Your task to perform on an android device: turn off sleep mode Image 0: 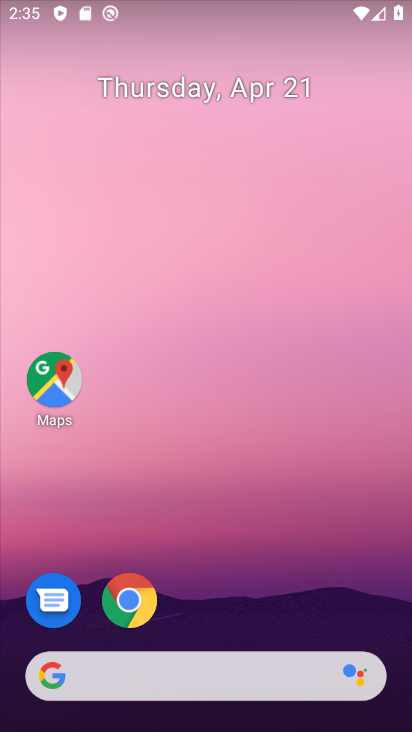
Step 0: drag from (238, 329) to (308, 228)
Your task to perform on an android device: turn off sleep mode Image 1: 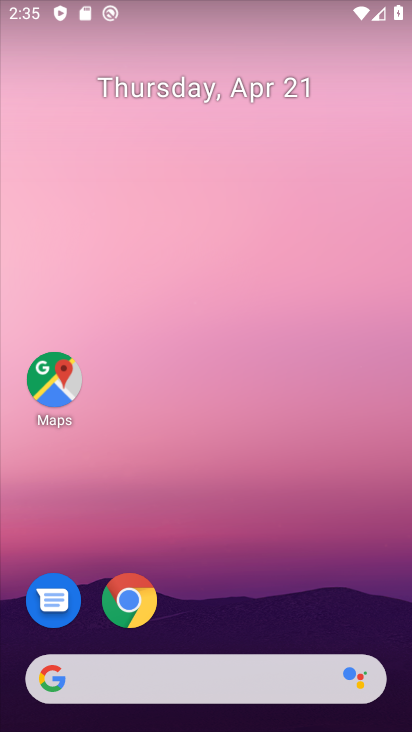
Step 1: drag from (143, 423) to (284, 245)
Your task to perform on an android device: turn off sleep mode Image 2: 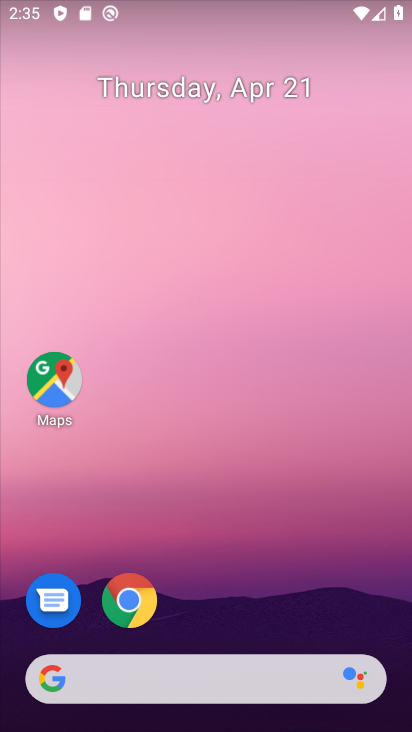
Step 2: drag from (24, 573) to (250, 262)
Your task to perform on an android device: turn off sleep mode Image 3: 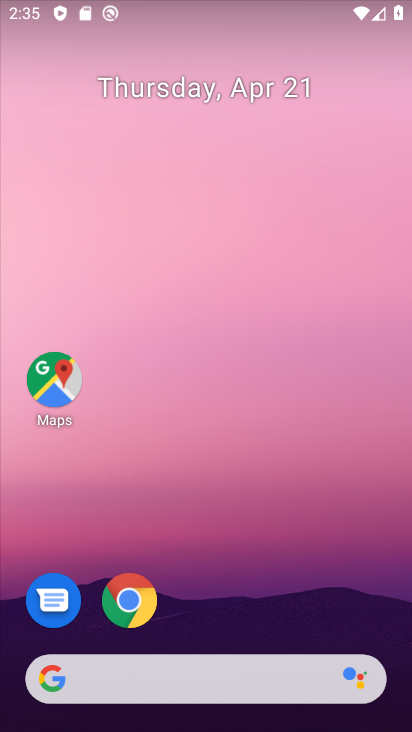
Step 3: drag from (96, 481) to (203, 280)
Your task to perform on an android device: turn off sleep mode Image 4: 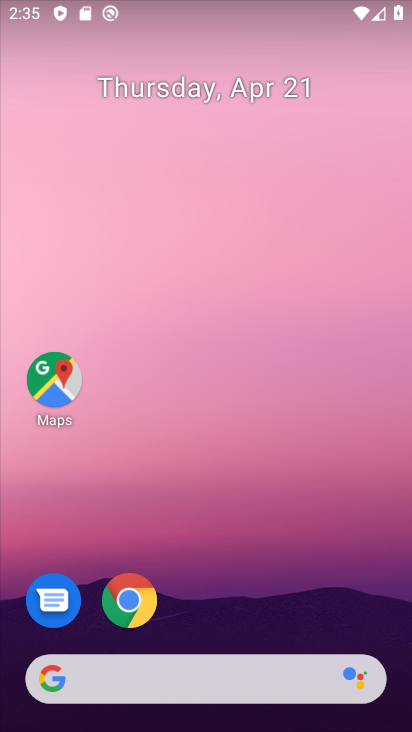
Step 4: drag from (100, 521) to (284, 151)
Your task to perform on an android device: turn off sleep mode Image 5: 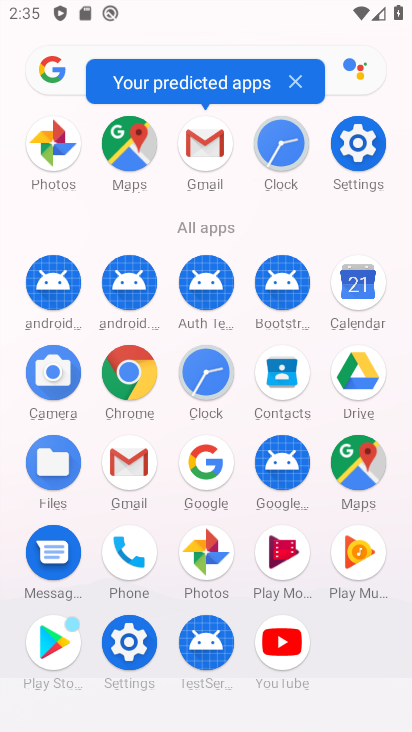
Step 5: click (356, 148)
Your task to perform on an android device: turn off sleep mode Image 6: 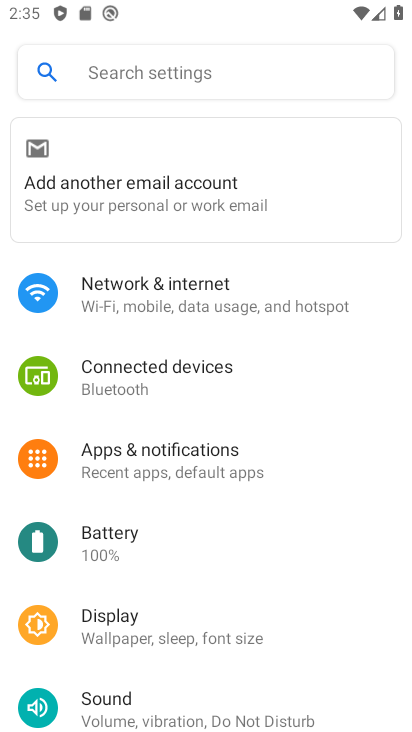
Step 6: task complete